Your task to perform on an android device: Open settings Image 0: 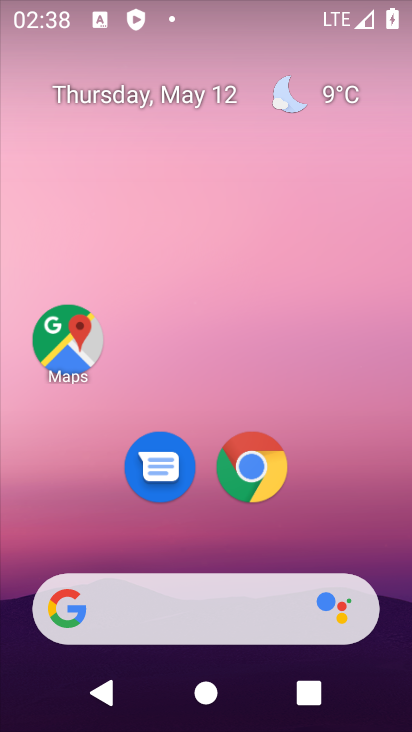
Step 0: drag from (321, 420) to (313, 197)
Your task to perform on an android device: Open settings Image 1: 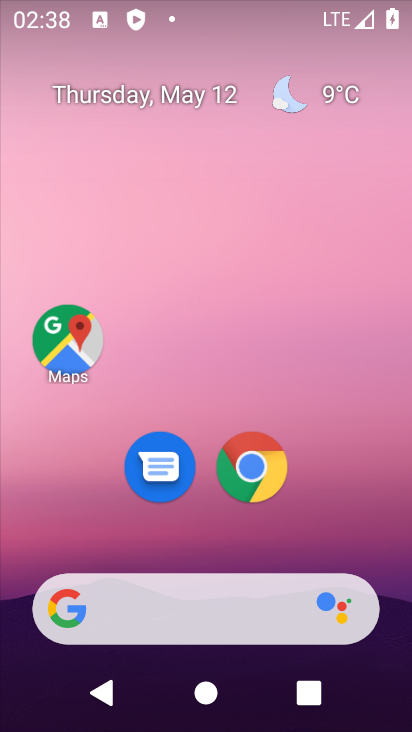
Step 1: drag from (318, 534) to (318, 245)
Your task to perform on an android device: Open settings Image 2: 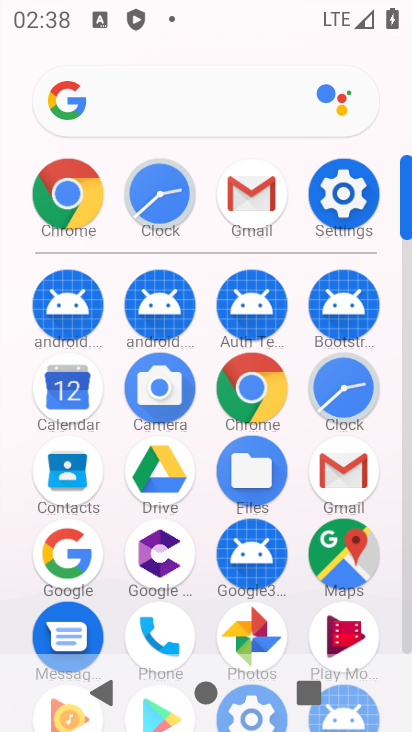
Step 2: click (338, 194)
Your task to perform on an android device: Open settings Image 3: 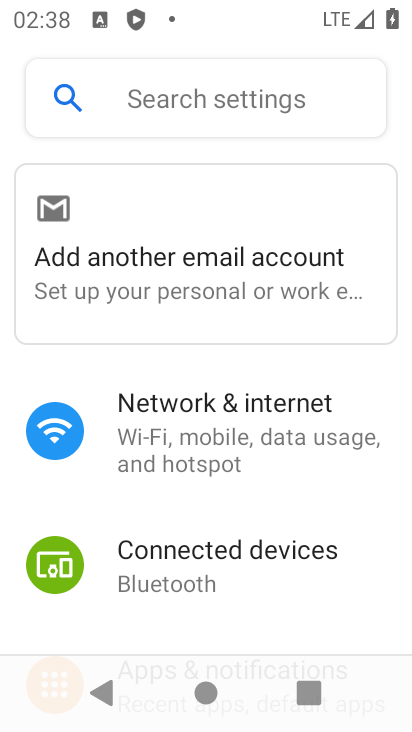
Step 3: drag from (215, 605) to (245, 228)
Your task to perform on an android device: Open settings Image 4: 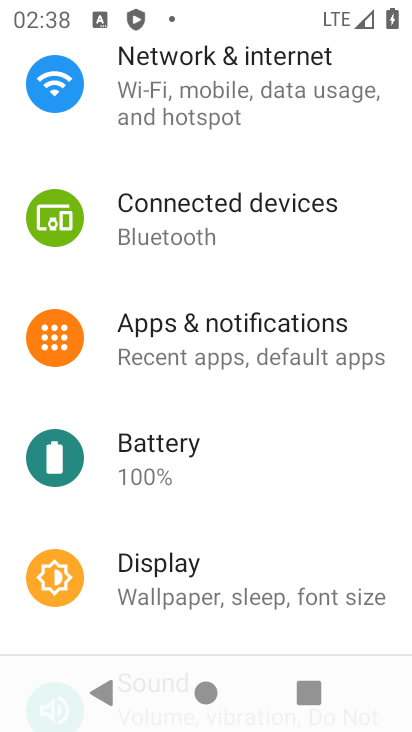
Step 4: drag from (219, 553) to (247, 94)
Your task to perform on an android device: Open settings Image 5: 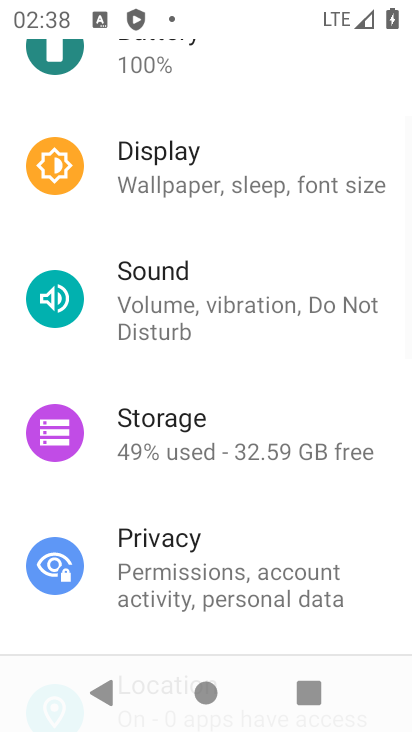
Step 5: drag from (170, 545) to (253, 130)
Your task to perform on an android device: Open settings Image 6: 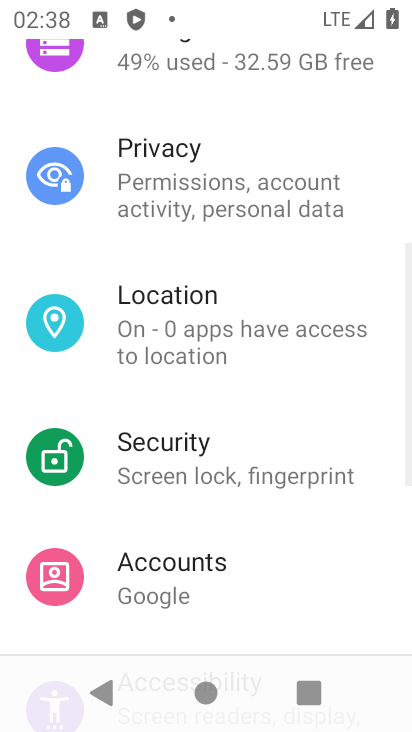
Step 6: drag from (194, 522) to (264, 144)
Your task to perform on an android device: Open settings Image 7: 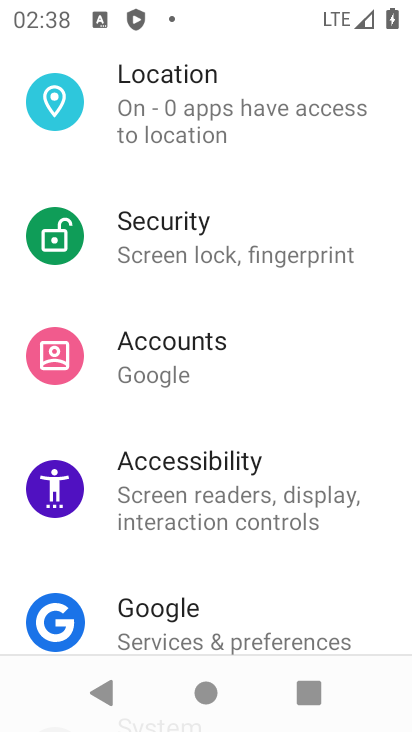
Step 7: drag from (257, 579) to (264, 174)
Your task to perform on an android device: Open settings Image 8: 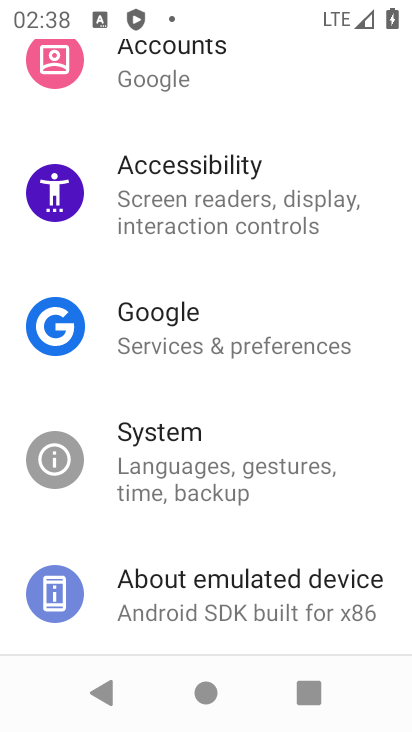
Step 8: drag from (217, 544) to (270, 154)
Your task to perform on an android device: Open settings Image 9: 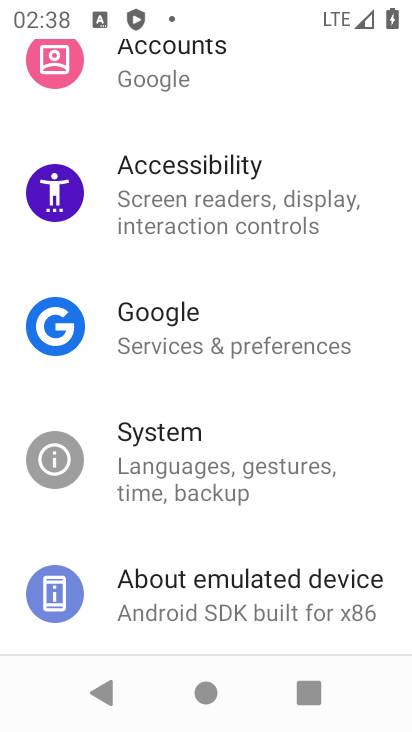
Step 9: drag from (243, 88) to (222, 601)
Your task to perform on an android device: Open settings Image 10: 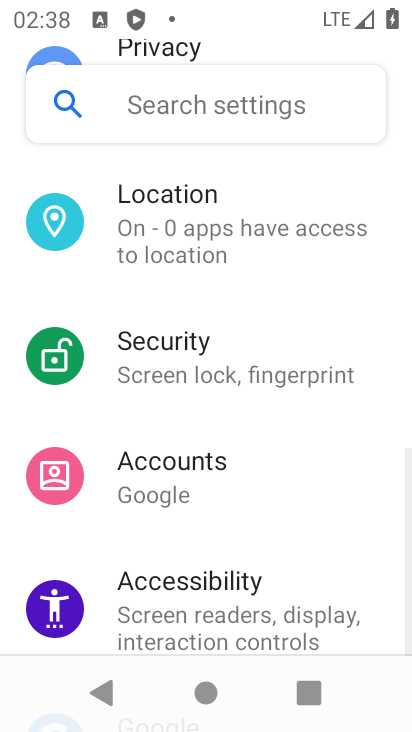
Step 10: drag from (231, 178) to (243, 557)
Your task to perform on an android device: Open settings Image 11: 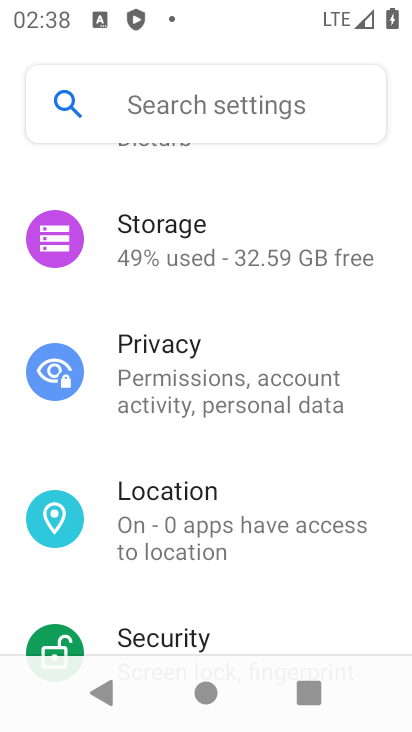
Step 11: drag from (278, 177) to (279, 592)
Your task to perform on an android device: Open settings Image 12: 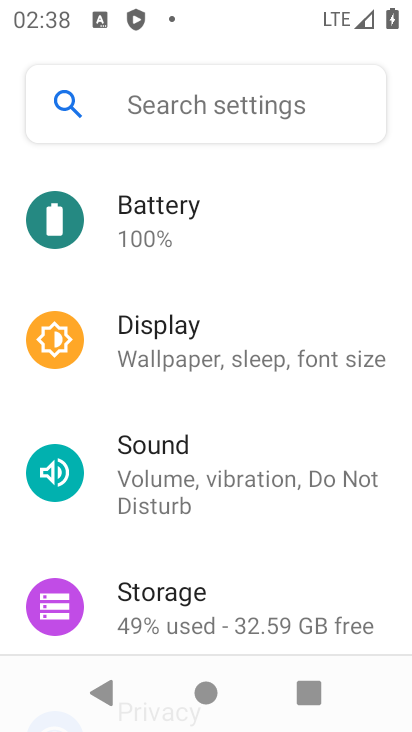
Step 12: click (303, 172)
Your task to perform on an android device: Open settings Image 13: 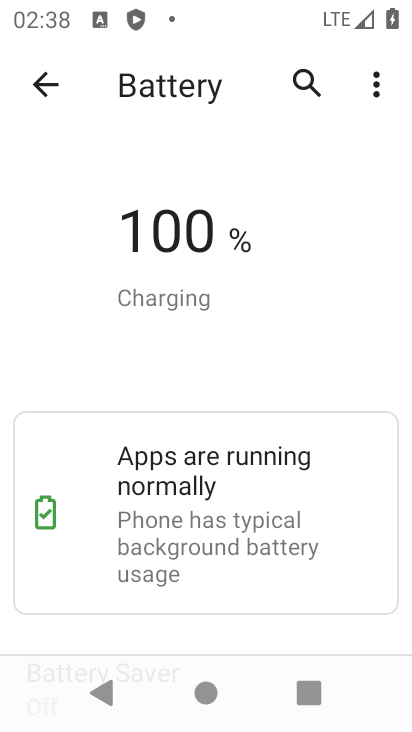
Step 13: click (36, 87)
Your task to perform on an android device: Open settings Image 14: 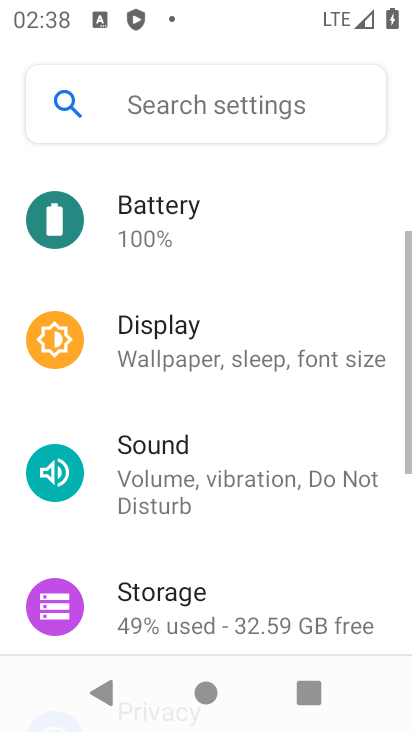
Step 14: task complete